Your task to perform on an android device: Open wifi settings Image 0: 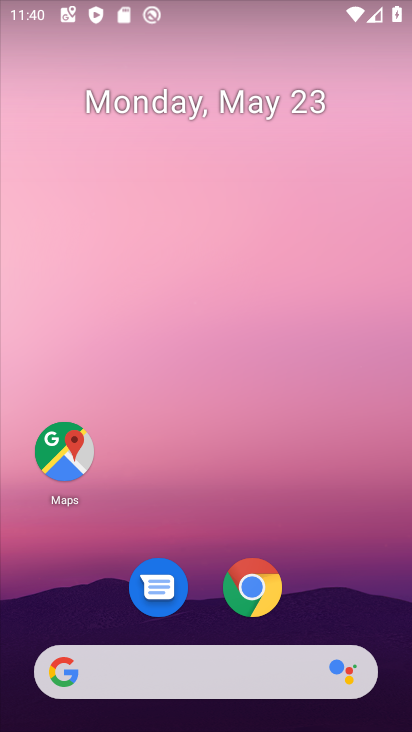
Step 0: drag from (393, 599) to (278, 153)
Your task to perform on an android device: Open wifi settings Image 1: 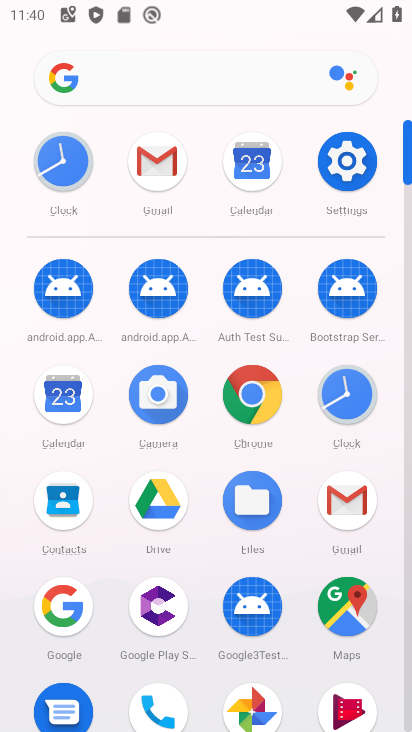
Step 1: click (328, 165)
Your task to perform on an android device: Open wifi settings Image 2: 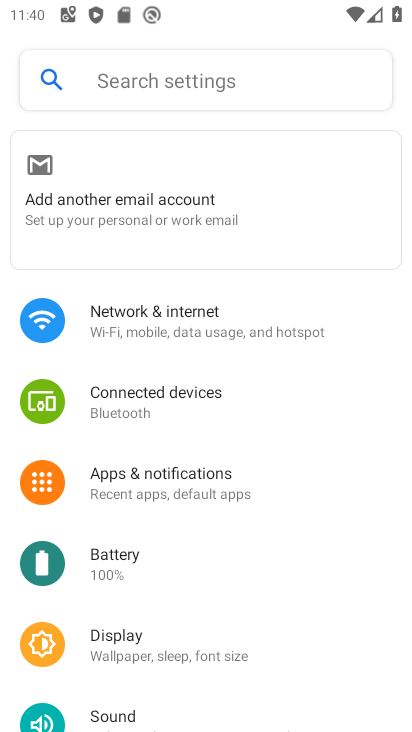
Step 2: click (243, 328)
Your task to perform on an android device: Open wifi settings Image 3: 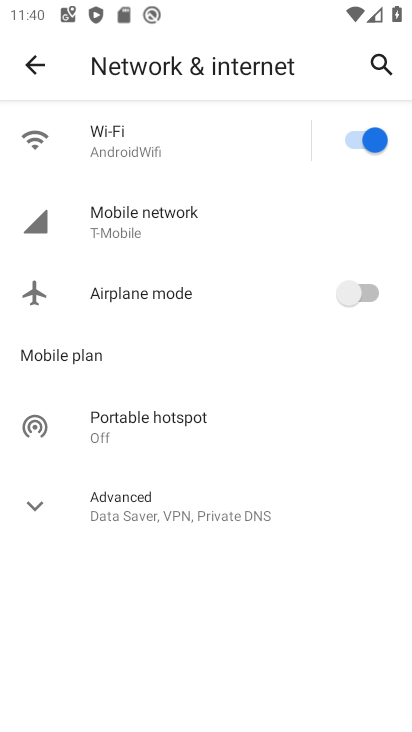
Step 3: click (152, 121)
Your task to perform on an android device: Open wifi settings Image 4: 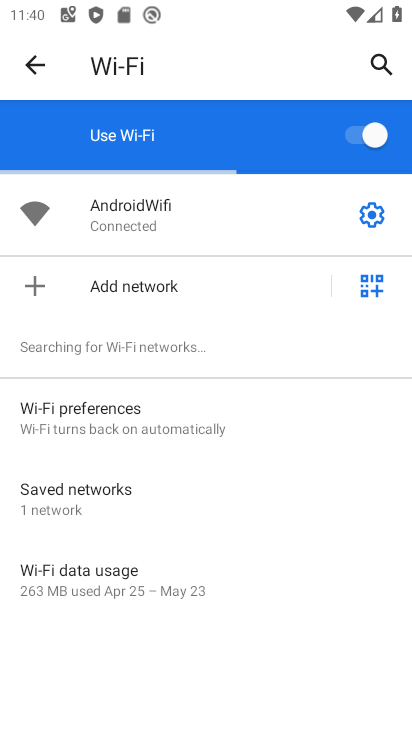
Step 4: task complete